Your task to perform on an android device: turn off sleep mode Image 0: 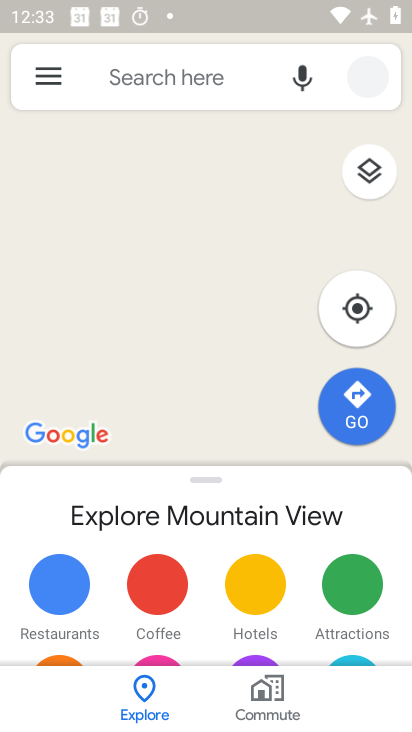
Step 0: press home button
Your task to perform on an android device: turn off sleep mode Image 1: 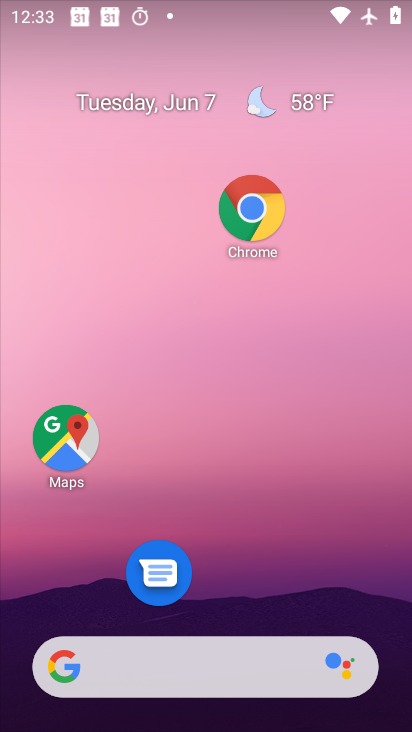
Step 1: drag from (212, 584) to (213, 205)
Your task to perform on an android device: turn off sleep mode Image 2: 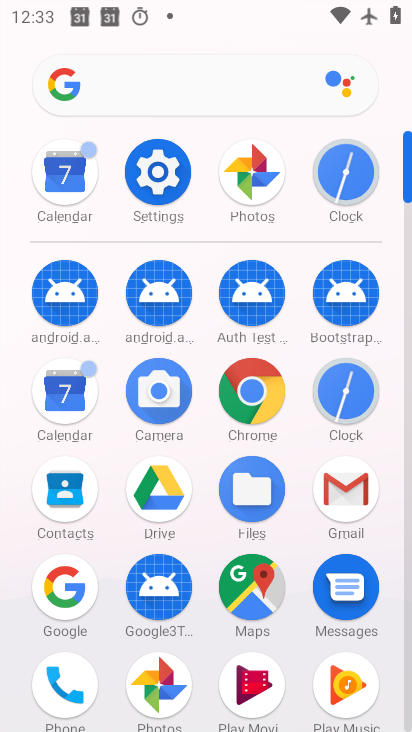
Step 2: click (156, 186)
Your task to perform on an android device: turn off sleep mode Image 3: 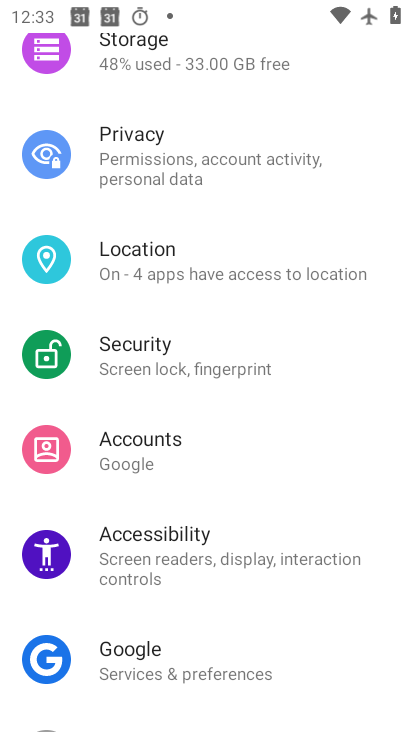
Step 3: drag from (222, 204) to (248, 489)
Your task to perform on an android device: turn off sleep mode Image 4: 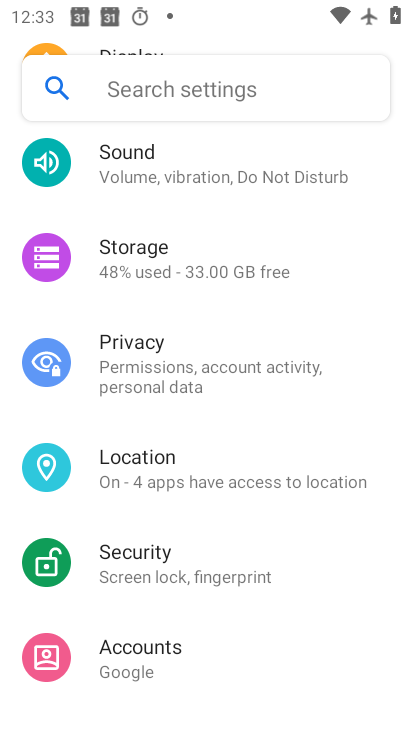
Step 4: drag from (201, 190) to (229, 398)
Your task to perform on an android device: turn off sleep mode Image 5: 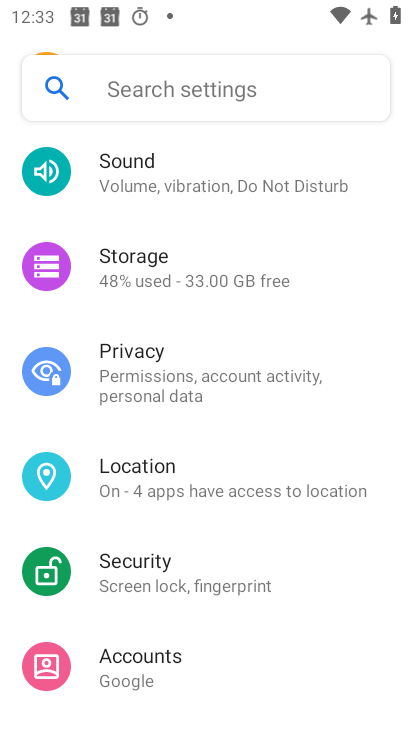
Step 5: drag from (217, 215) to (232, 449)
Your task to perform on an android device: turn off sleep mode Image 6: 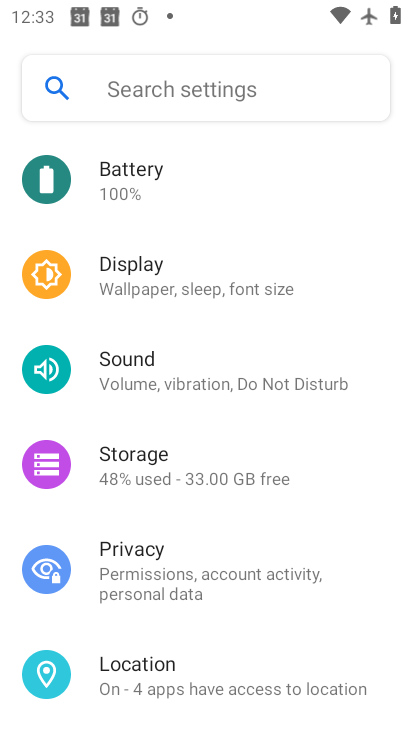
Step 6: click (191, 270)
Your task to perform on an android device: turn off sleep mode Image 7: 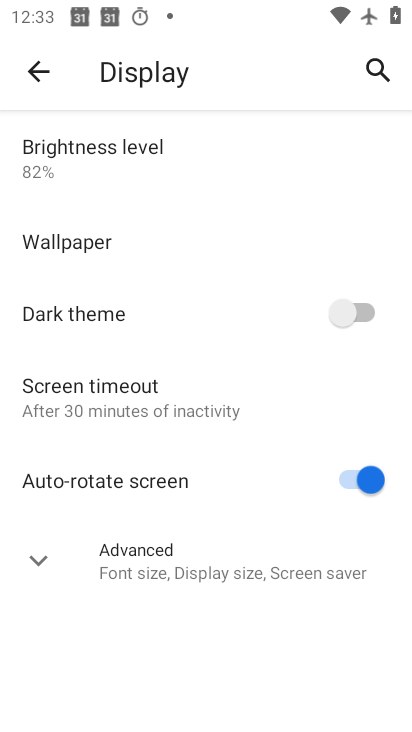
Step 7: click (157, 396)
Your task to perform on an android device: turn off sleep mode Image 8: 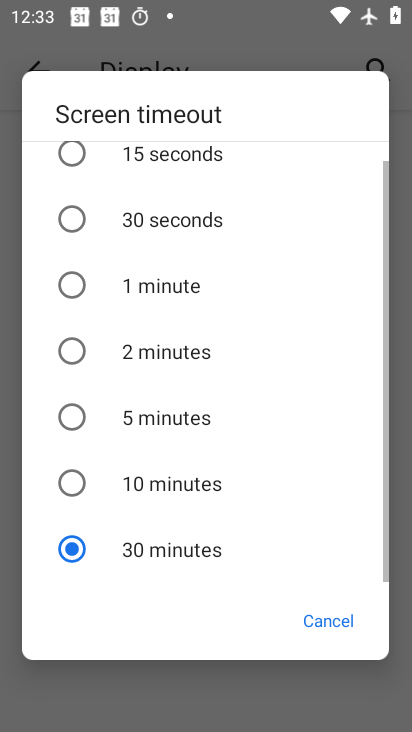
Step 8: click (157, 348)
Your task to perform on an android device: turn off sleep mode Image 9: 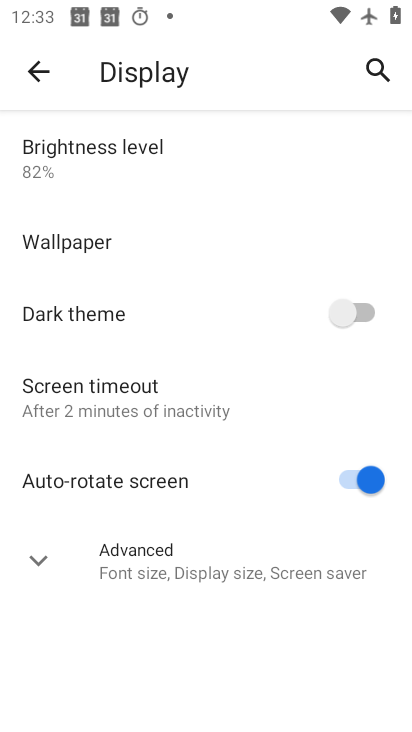
Step 9: task complete